Your task to perform on an android device: Open CNN.com Image 0: 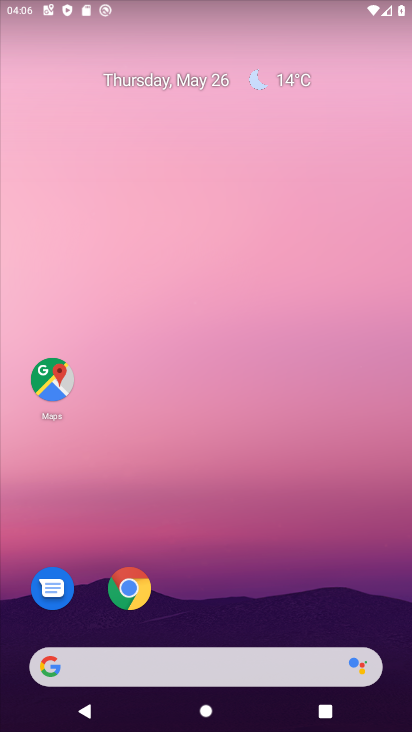
Step 0: click (223, 655)
Your task to perform on an android device: Open CNN.com Image 1: 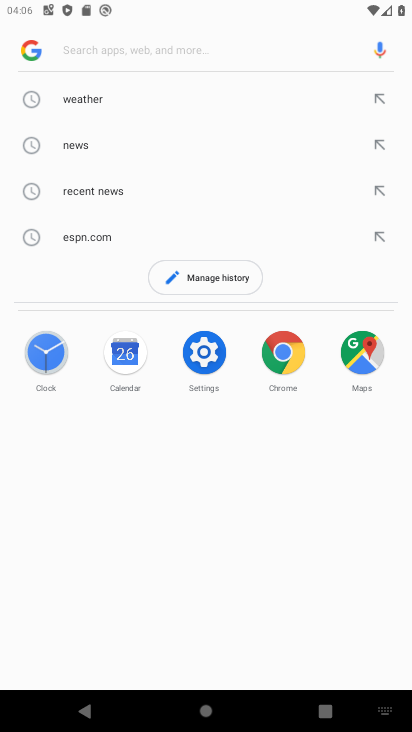
Step 1: type "cnn.com"
Your task to perform on an android device: Open CNN.com Image 2: 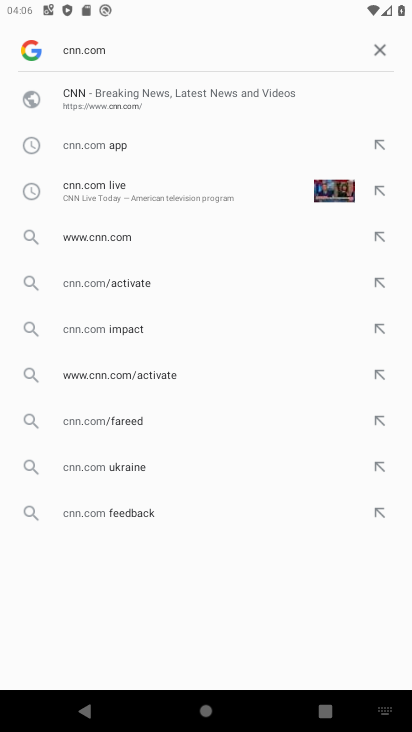
Step 2: click (183, 111)
Your task to perform on an android device: Open CNN.com Image 3: 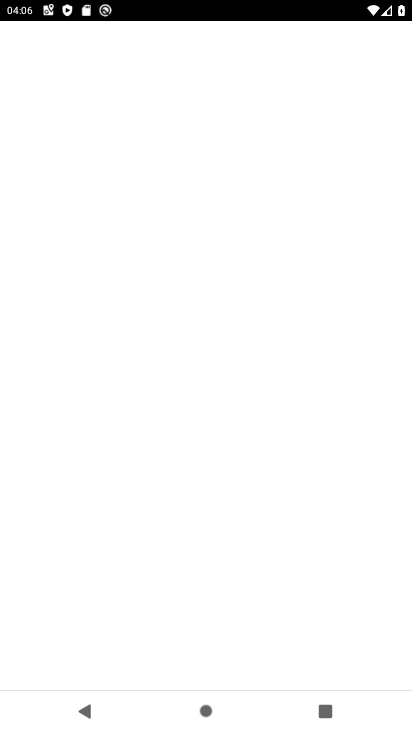
Step 3: task complete